Your task to perform on an android device: turn on location history Image 0: 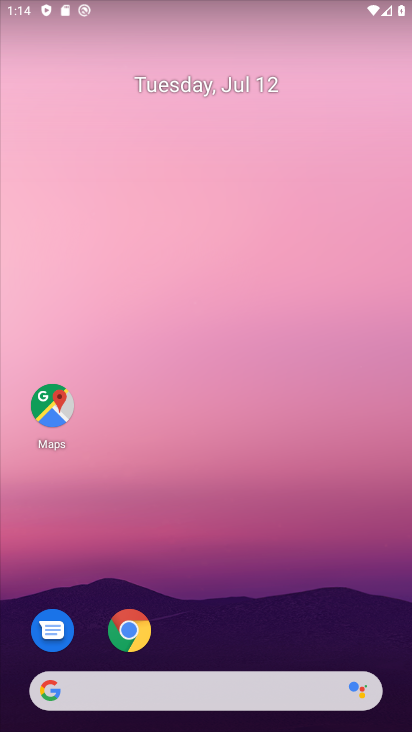
Step 0: drag from (236, 669) to (218, 141)
Your task to perform on an android device: turn on location history Image 1: 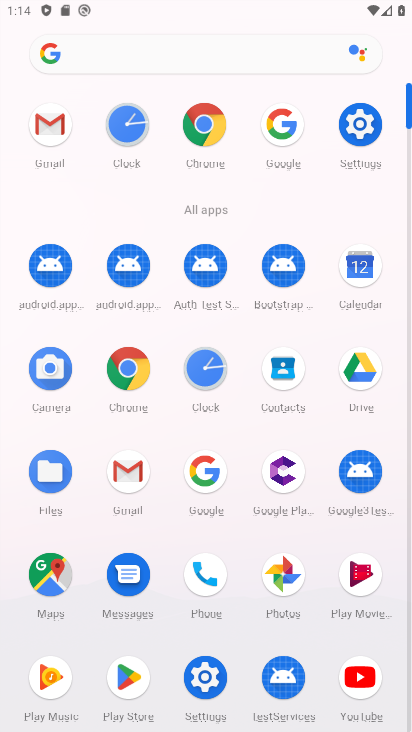
Step 1: click (205, 669)
Your task to perform on an android device: turn on location history Image 2: 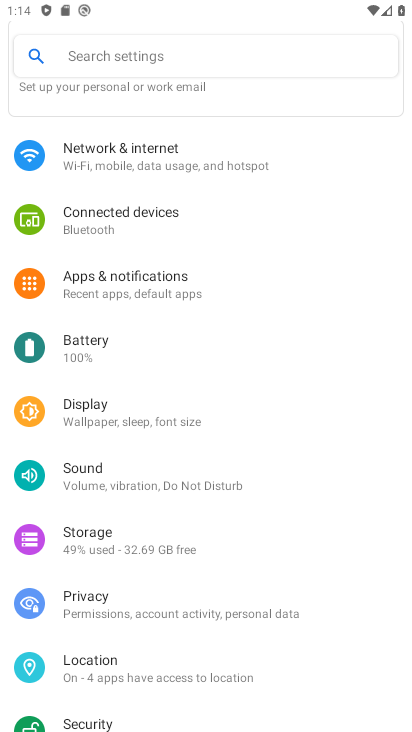
Step 2: click (113, 655)
Your task to perform on an android device: turn on location history Image 3: 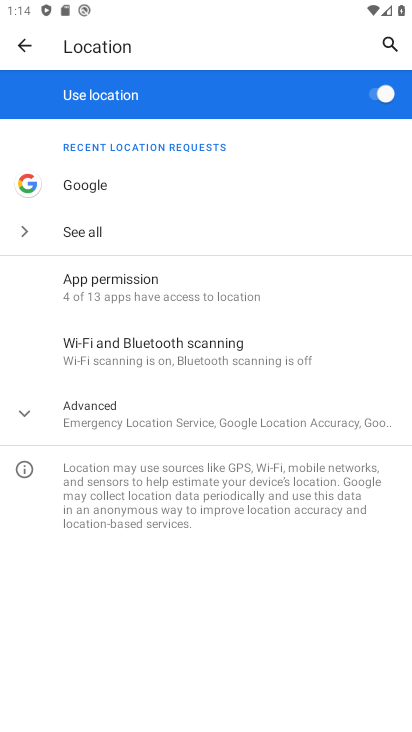
Step 3: click (76, 426)
Your task to perform on an android device: turn on location history Image 4: 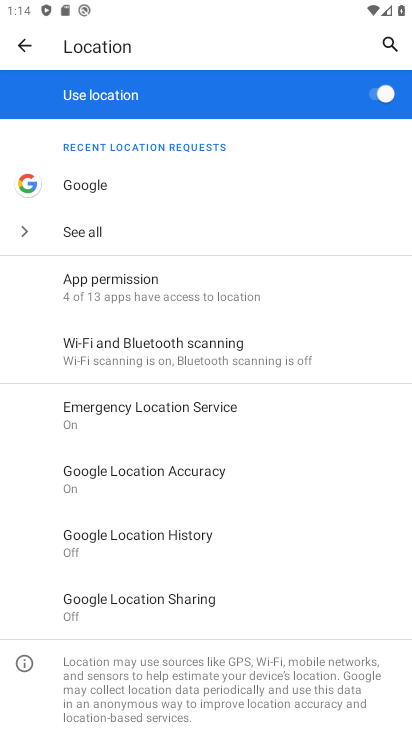
Step 4: click (159, 531)
Your task to perform on an android device: turn on location history Image 5: 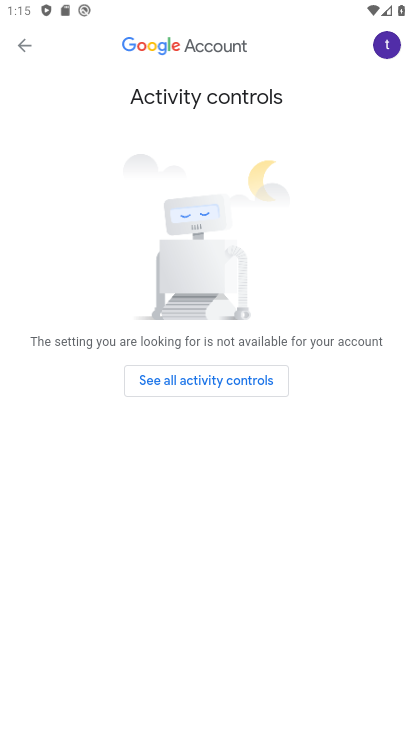
Step 5: click (233, 380)
Your task to perform on an android device: turn on location history Image 6: 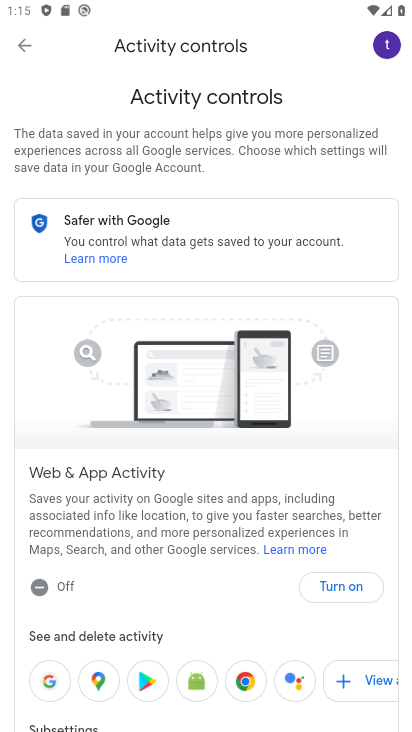
Step 6: click (350, 582)
Your task to perform on an android device: turn on location history Image 7: 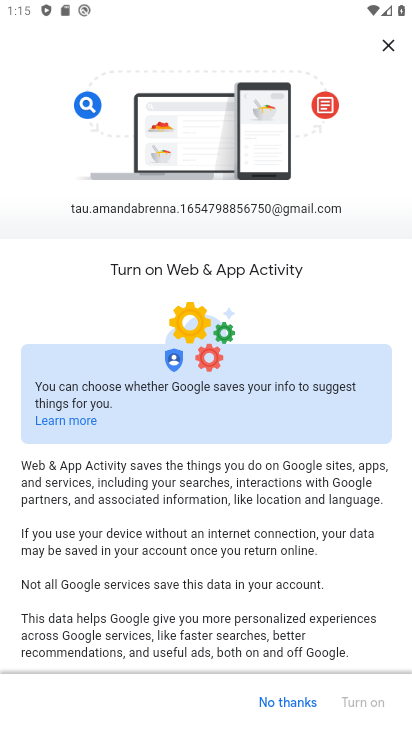
Step 7: drag from (346, 600) to (237, 115)
Your task to perform on an android device: turn on location history Image 8: 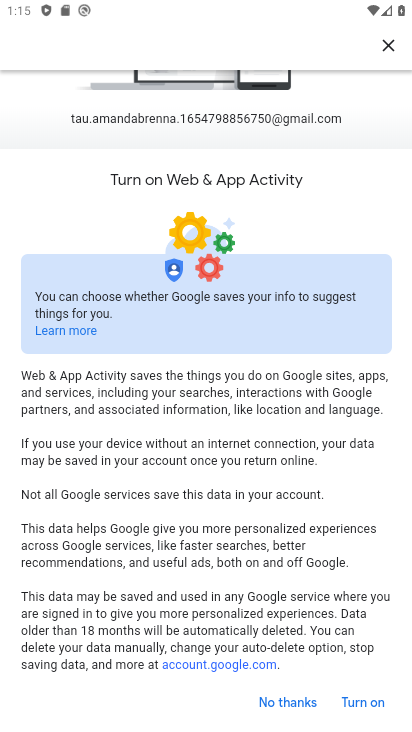
Step 8: click (359, 694)
Your task to perform on an android device: turn on location history Image 9: 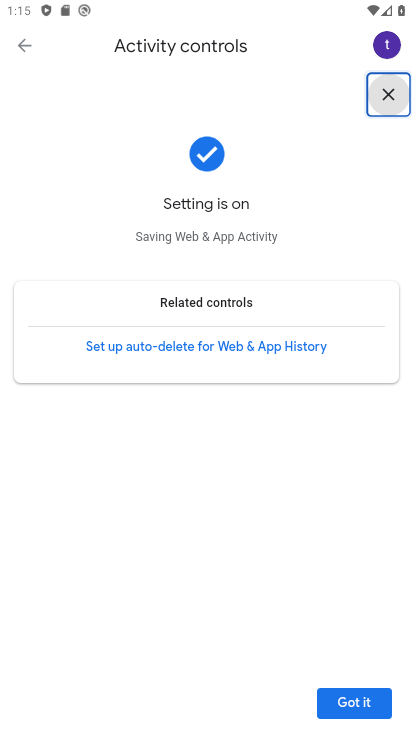
Step 9: click (382, 701)
Your task to perform on an android device: turn on location history Image 10: 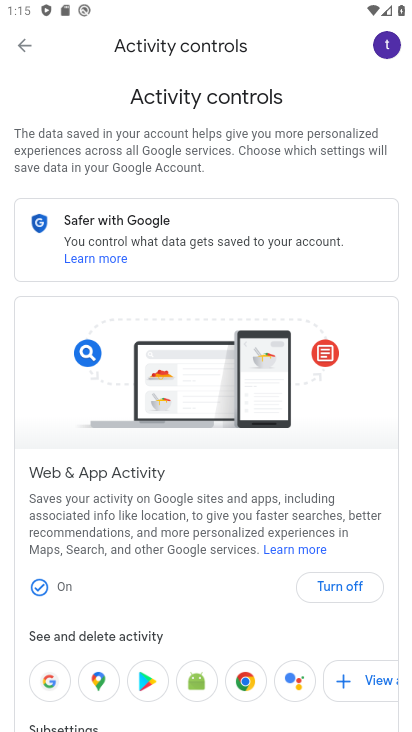
Step 10: task complete